Your task to perform on an android device: turn on bluetooth scan Image 0: 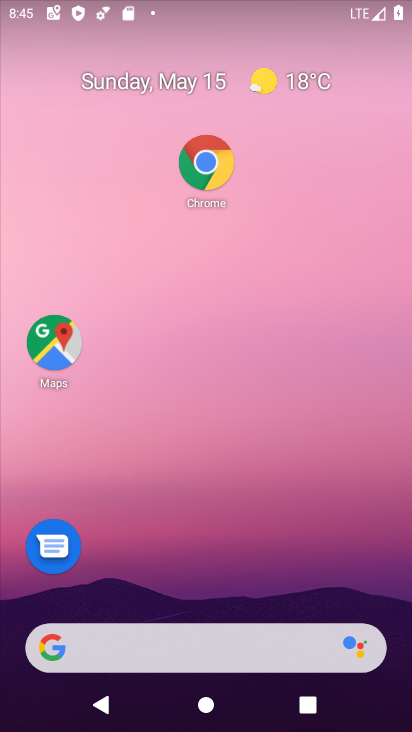
Step 0: drag from (208, 498) to (211, 190)
Your task to perform on an android device: turn on bluetooth scan Image 1: 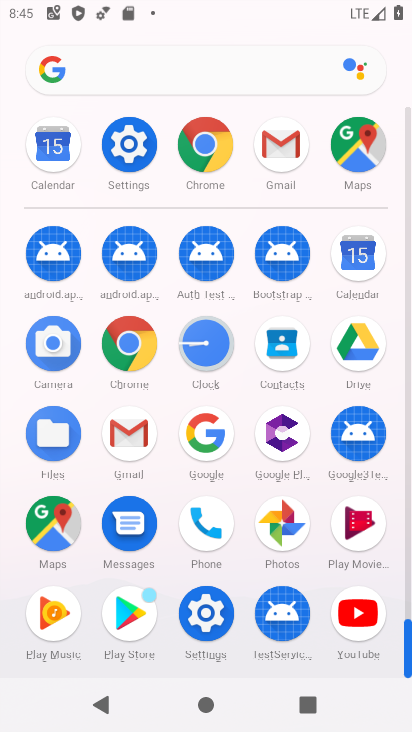
Step 1: click (135, 140)
Your task to perform on an android device: turn on bluetooth scan Image 2: 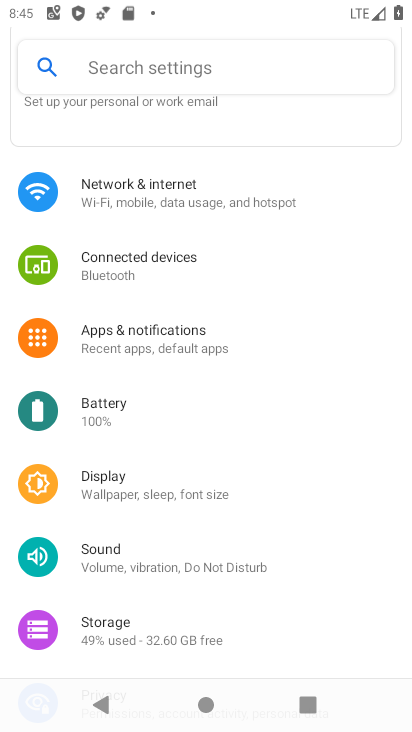
Step 2: click (172, 54)
Your task to perform on an android device: turn on bluetooth scan Image 3: 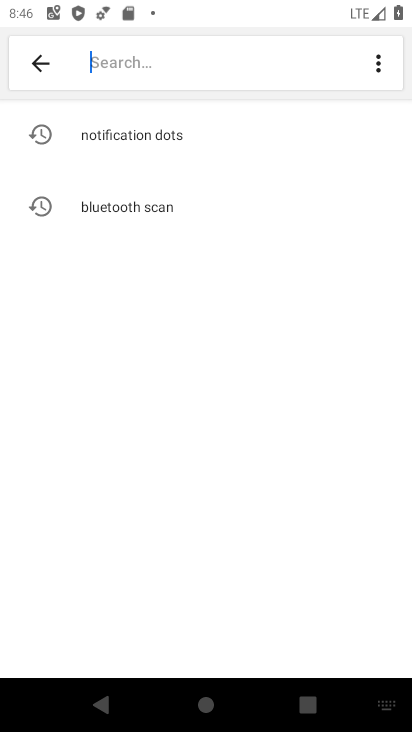
Step 3: click (161, 207)
Your task to perform on an android device: turn on bluetooth scan Image 4: 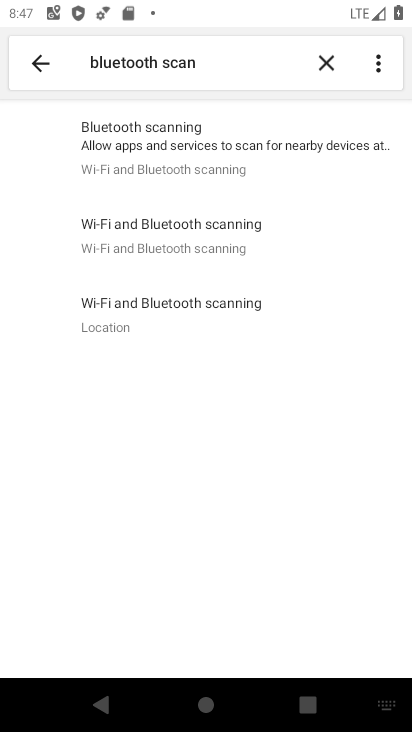
Step 4: click (175, 126)
Your task to perform on an android device: turn on bluetooth scan Image 5: 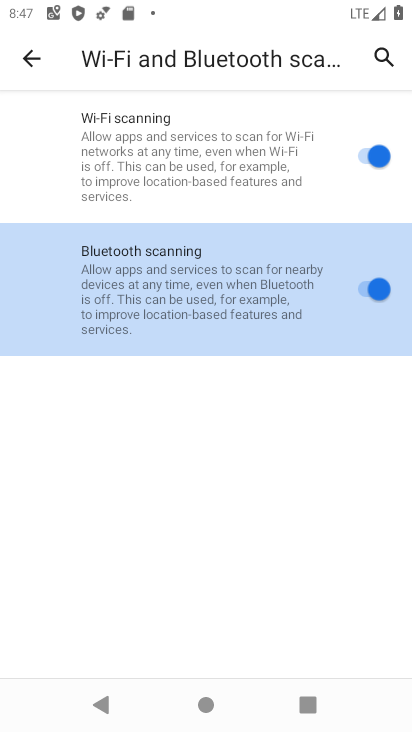
Step 5: task complete